Your task to perform on an android device: turn on translation in the chrome app Image 0: 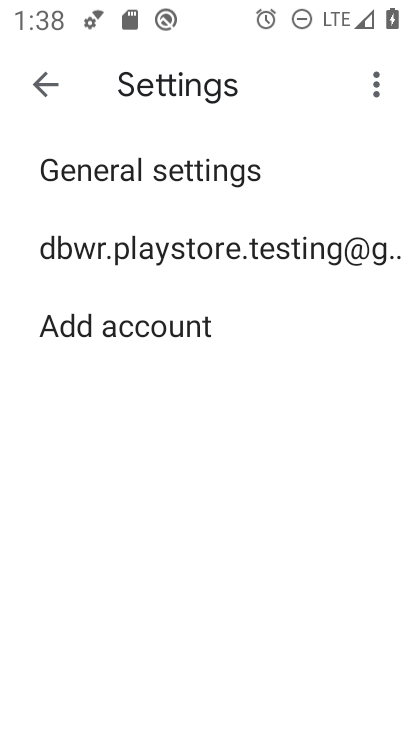
Step 0: press home button
Your task to perform on an android device: turn on translation in the chrome app Image 1: 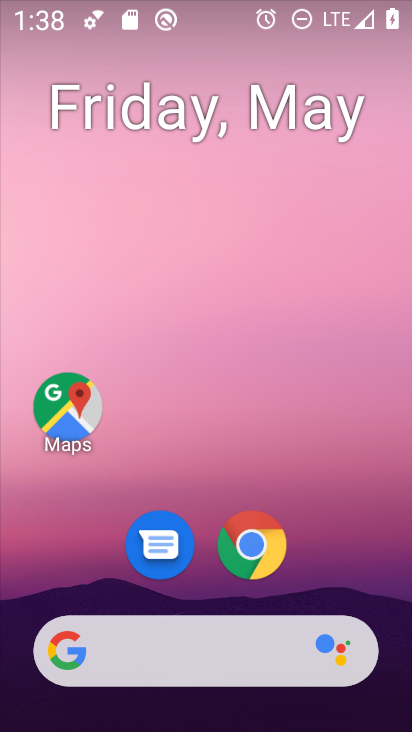
Step 1: drag from (327, 576) to (302, 279)
Your task to perform on an android device: turn on translation in the chrome app Image 2: 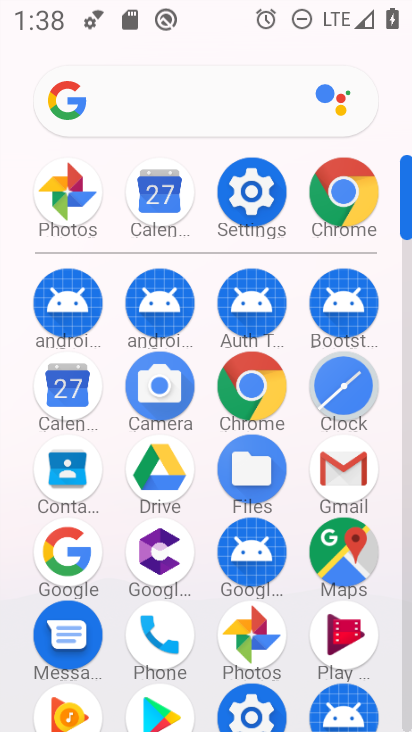
Step 2: click (252, 379)
Your task to perform on an android device: turn on translation in the chrome app Image 3: 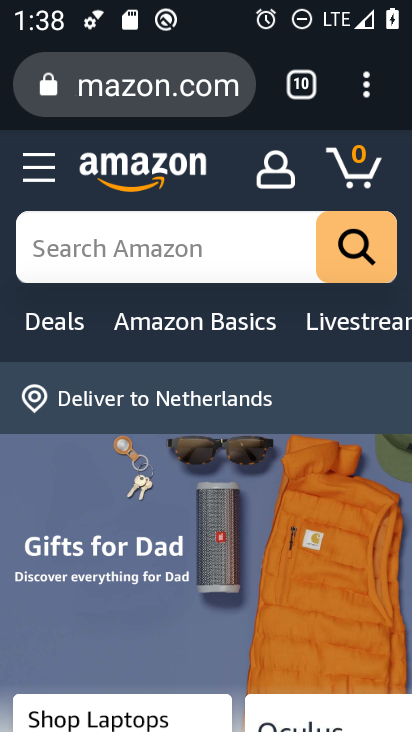
Step 3: click (381, 82)
Your task to perform on an android device: turn on translation in the chrome app Image 4: 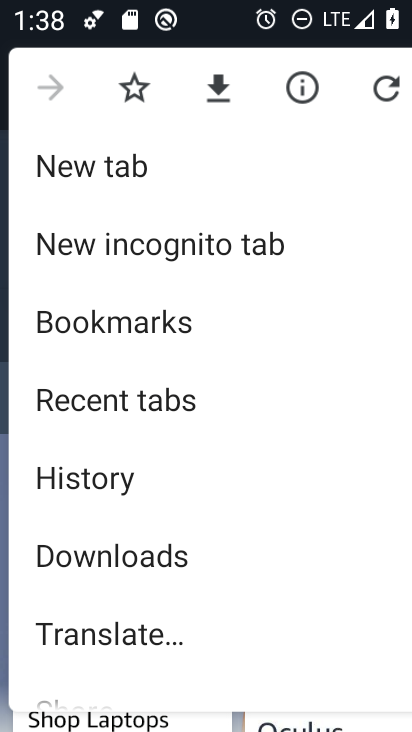
Step 4: drag from (173, 607) to (193, 244)
Your task to perform on an android device: turn on translation in the chrome app Image 5: 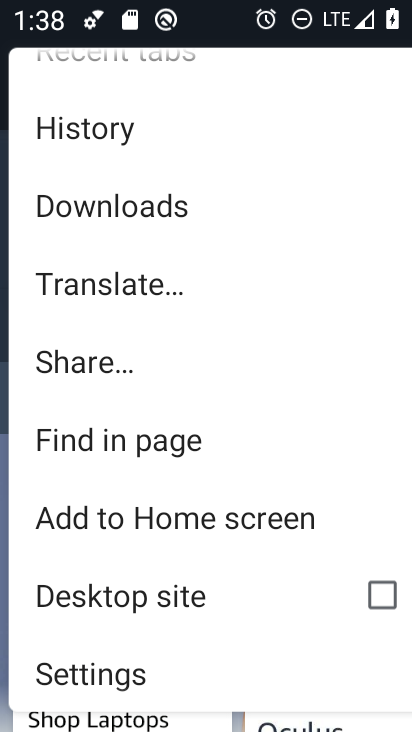
Step 5: click (127, 663)
Your task to perform on an android device: turn on translation in the chrome app Image 6: 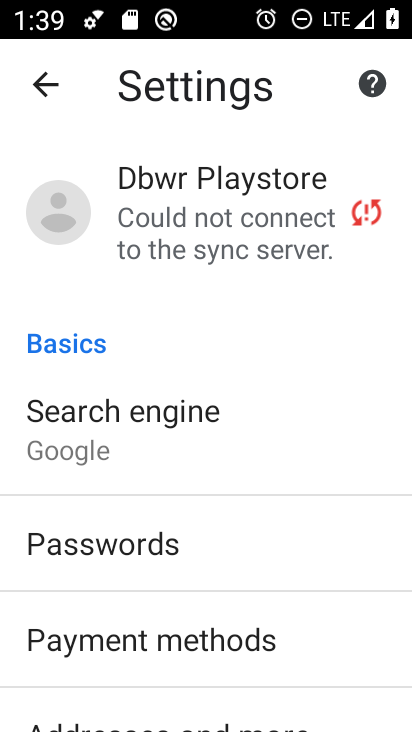
Step 6: drag from (213, 596) to (226, 189)
Your task to perform on an android device: turn on translation in the chrome app Image 7: 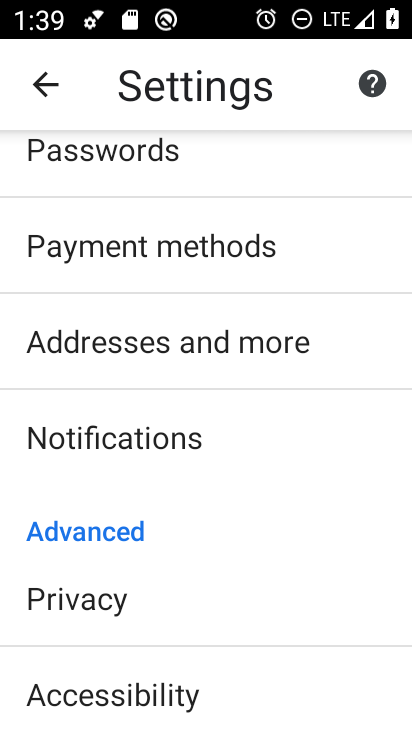
Step 7: drag from (136, 626) to (178, 221)
Your task to perform on an android device: turn on translation in the chrome app Image 8: 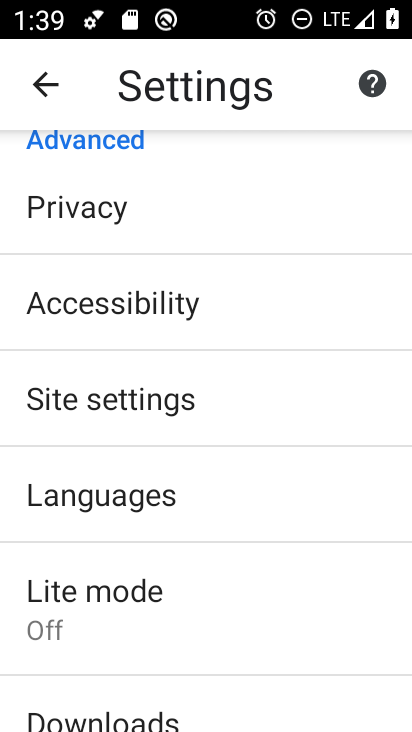
Step 8: click (142, 497)
Your task to perform on an android device: turn on translation in the chrome app Image 9: 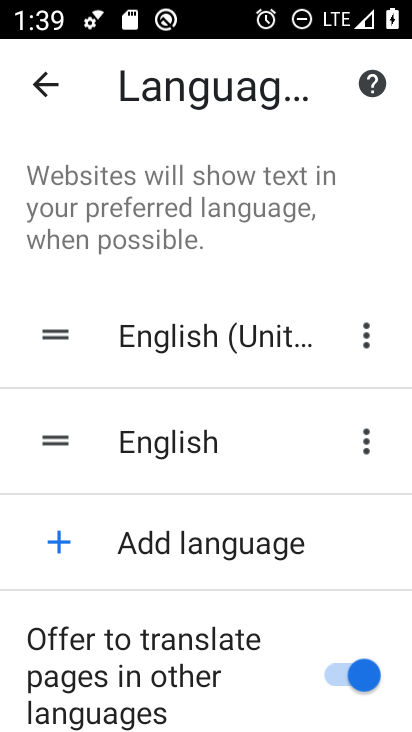
Step 9: task complete